Your task to perform on an android device: Open accessibility settings Image 0: 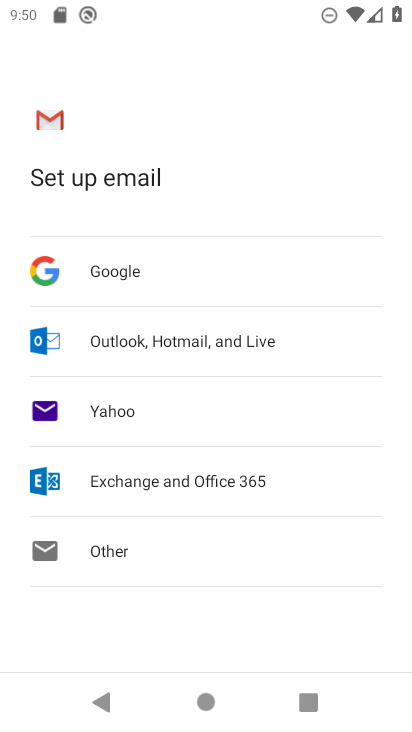
Step 0: press home button
Your task to perform on an android device: Open accessibility settings Image 1: 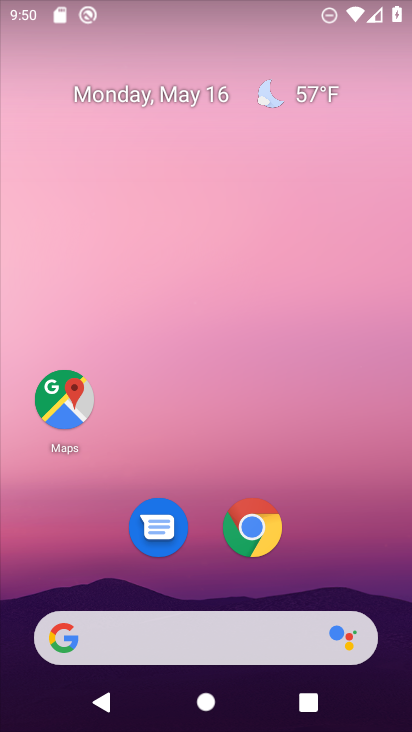
Step 1: drag from (384, 628) to (408, 343)
Your task to perform on an android device: Open accessibility settings Image 2: 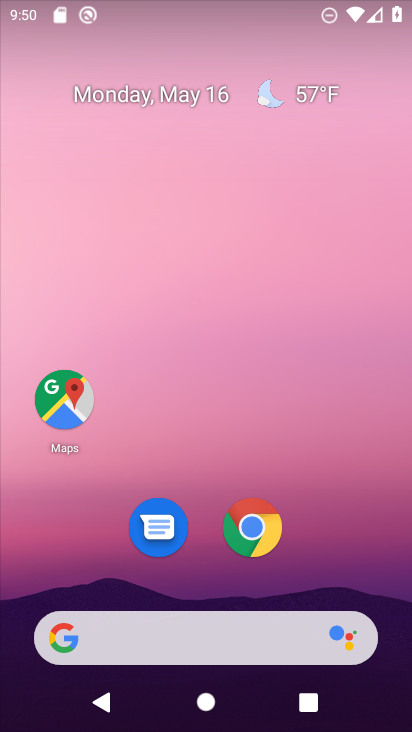
Step 2: drag from (396, 655) to (376, 384)
Your task to perform on an android device: Open accessibility settings Image 3: 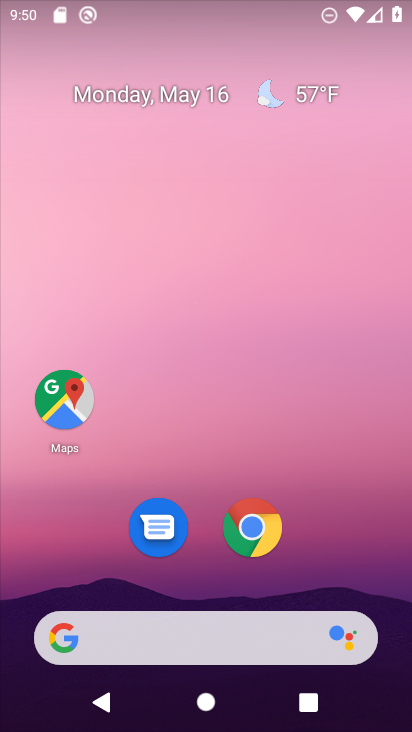
Step 3: drag from (399, 652) to (406, 251)
Your task to perform on an android device: Open accessibility settings Image 4: 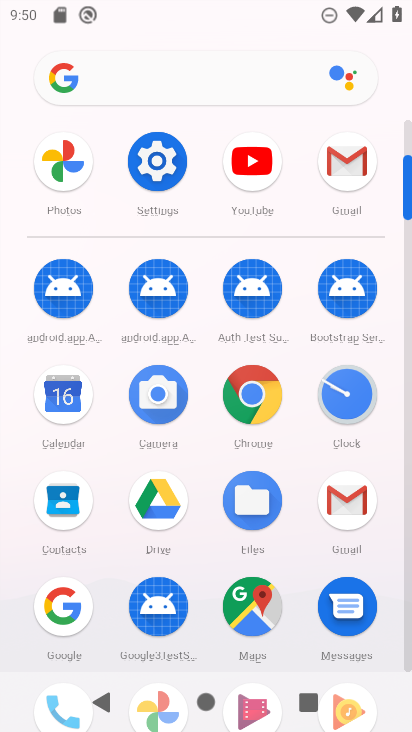
Step 4: click (165, 159)
Your task to perform on an android device: Open accessibility settings Image 5: 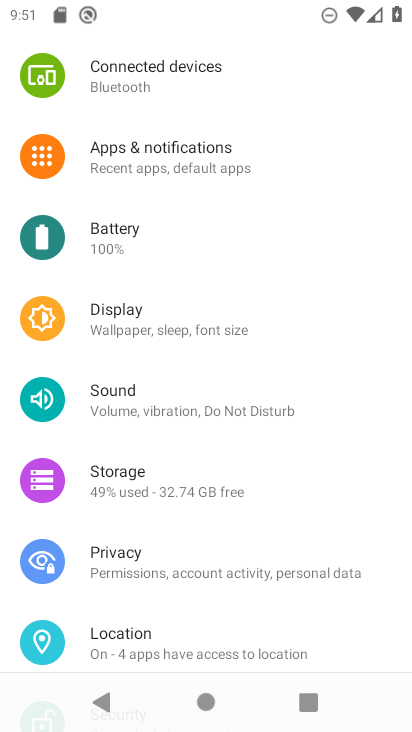
Step 5: drag from (348, 623) to (352, 396)
Your task to perform on an android device: Open accessibility settings Image 6: 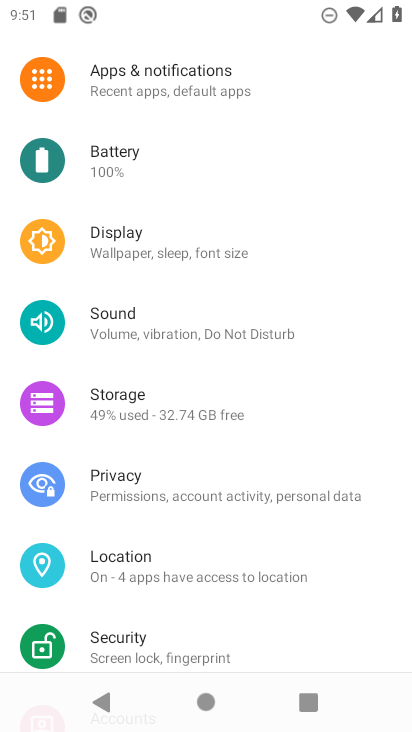
Step 6: drag from (367, 648) to (373, 419)
Your task to perform on an android device: Open accessibility settings Image 7: 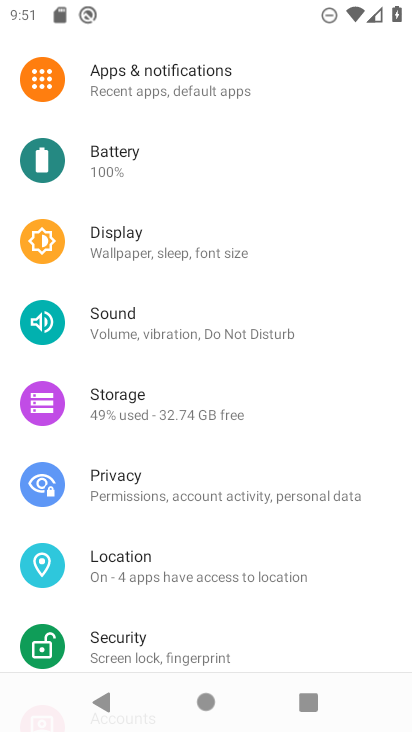
Step 7: drag from (370, 609) to (370, 388)
Your task to perform on an android device: Open accessibility settings Image 8: 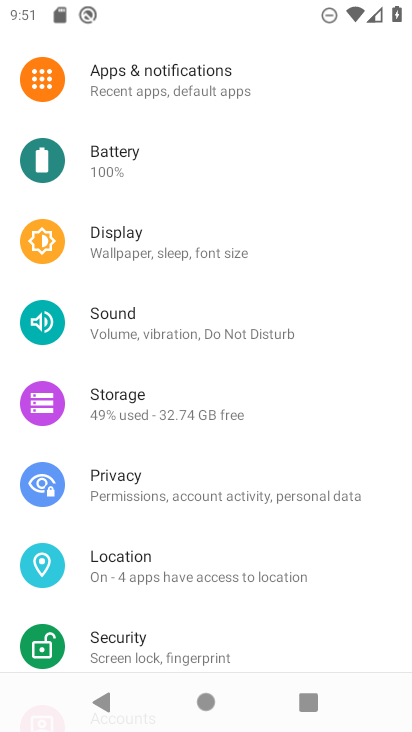
Step 8: drag from (401, 650) to (378, 321)
Your task to perform on an android device: Open accessibility settings Image 9: 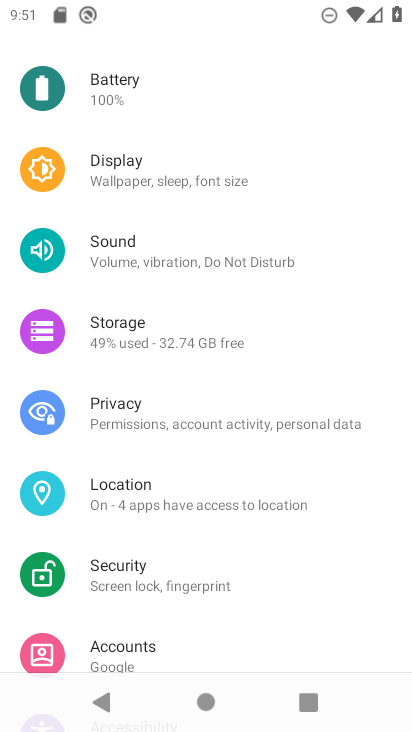
Step 9: drag from (358, 652) to (353, 349)
Your task to perform on an android device: Open accessibility settings Image 10: 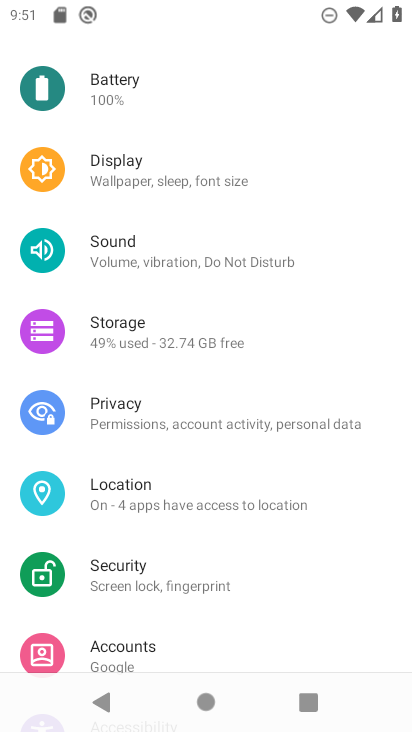
Step 10: drag from (353, 439) to (350, 333)
Your task to perform on an android device: Open accessibility settings Image 11: 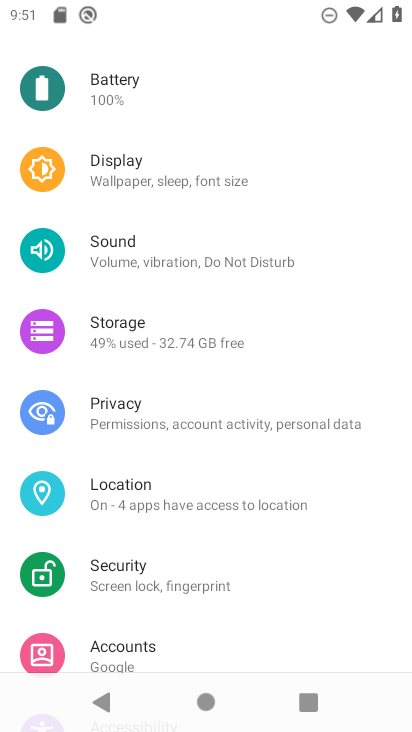
Step 11: drag from (380, 640) to (373, 262)
Your task to perform on an android device: Open accessibility settings Image 12: 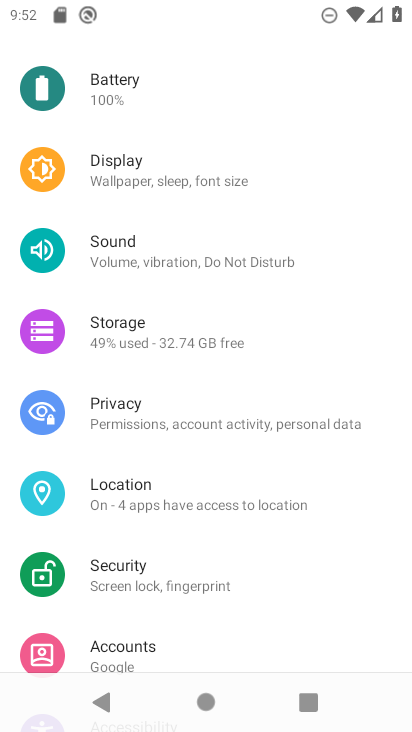
Step 12: drag from (362, 639) to (384, 392)
Your task to perform on an android device: Open accessibility settings Image 13: 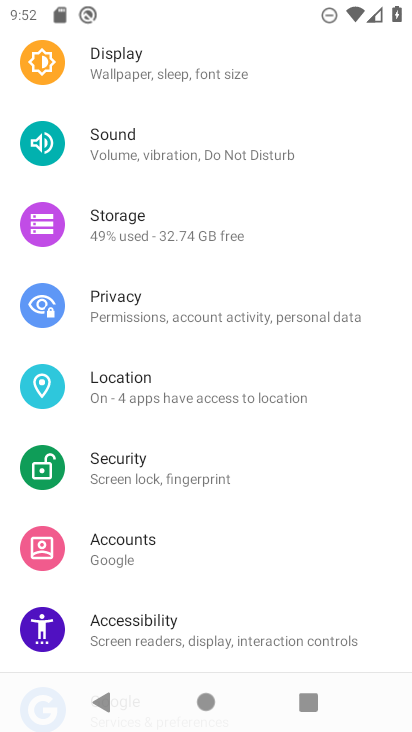
Step 13: click (147, 632)
Your task to perform on an android device: Open accessibility settings Image 14: 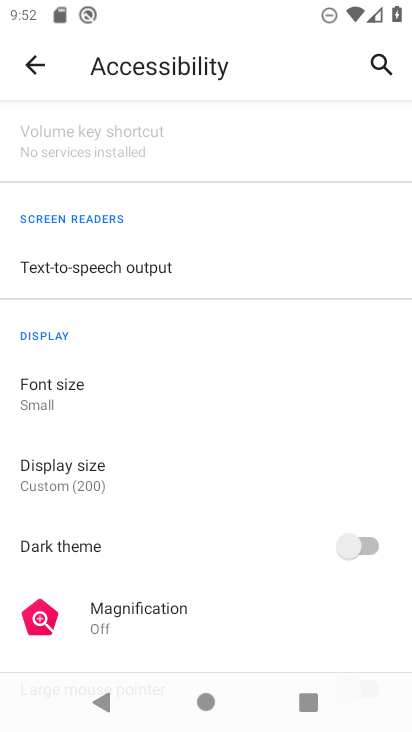
Step 14: task complete